Your task to perform on an android device: toggle sleep mode Image 0: 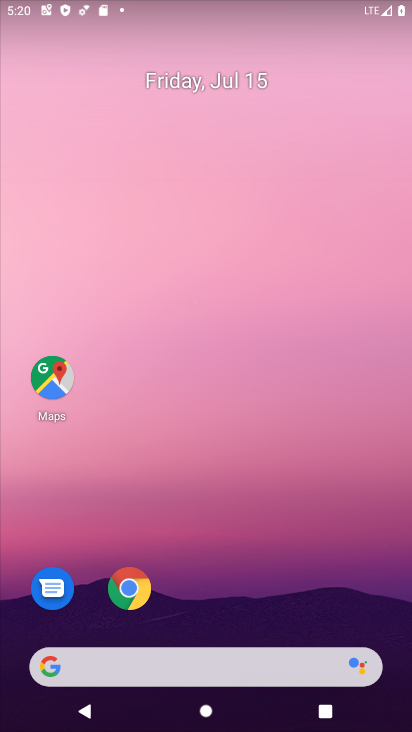
Step 0: drag from (149, 609) to (201, 205)
Your task to perform on an android device: toggle sleep mode Image 1: 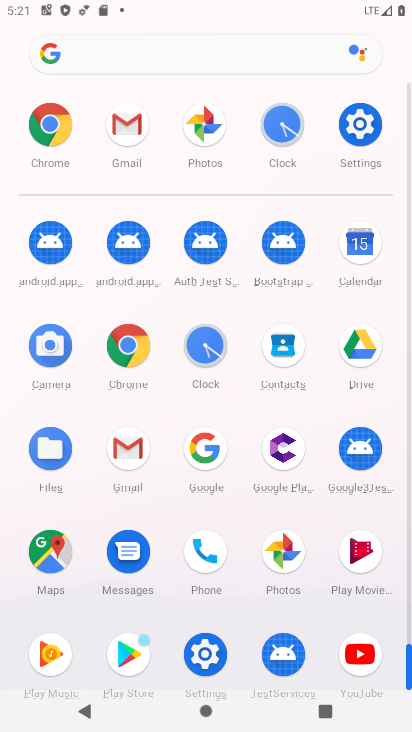
Step 1: click (354, 136)
Your task to perform on an android device: toggle sleep mode Image 2: 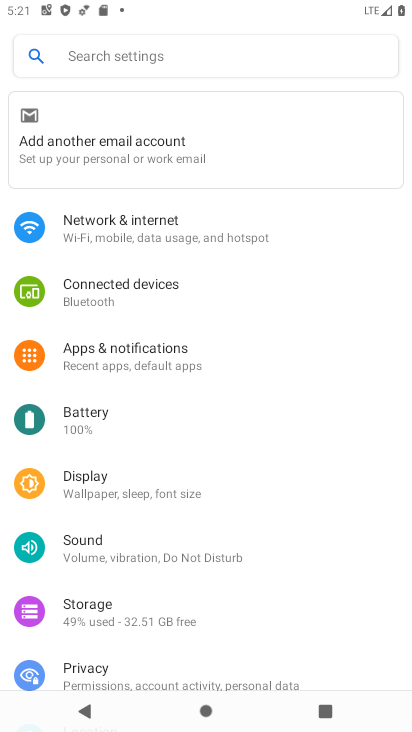
Step 2: click (126, 474)
Your task to perform on an android device: toggle sleep mode Image 3: 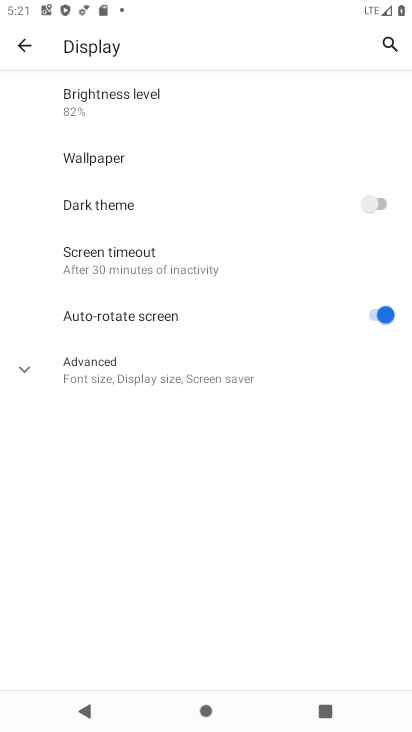
Step 3: task complete